Your task to perform on an android device: turn on the 12-hour format for clock Image 0: 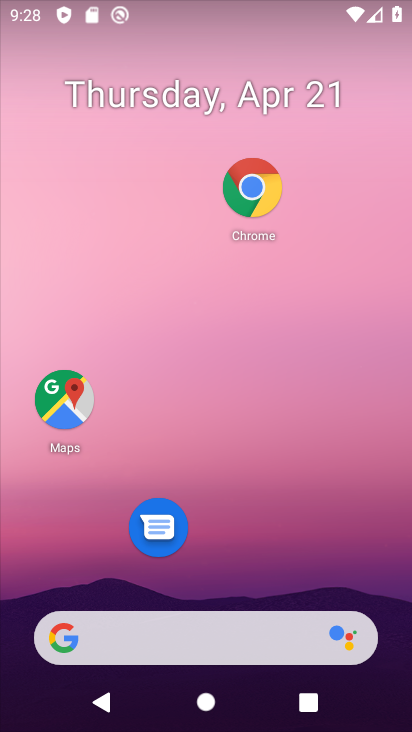
Step 0: drag from (249, 647) to (263, 92)
Your task to perform on an android device: turn on the 12-hour format for clock Image 1: 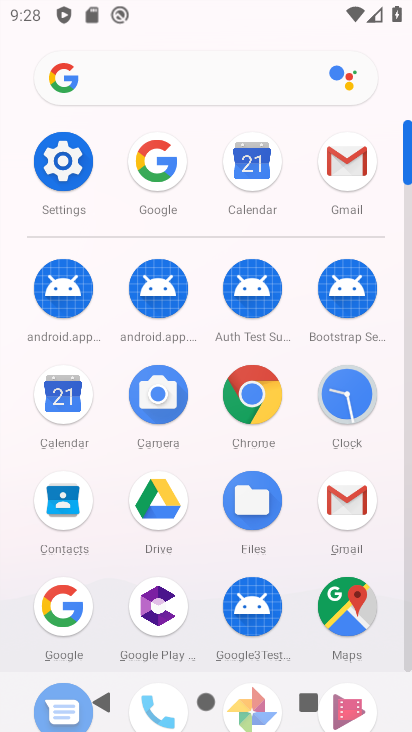
Step 1: click (343, 419)
Your task to perform on an android device: turn on the 12-hour format for clock Image 2: 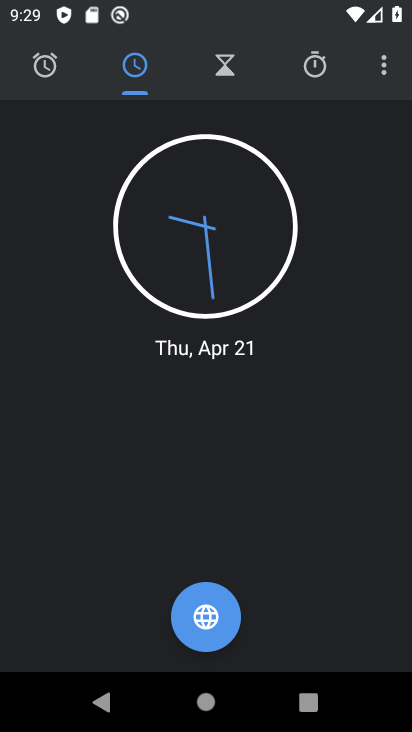
Step 2: click (382, 75)
Your task to perform on an android device: turn on the 12-hour format for clock Image 3: 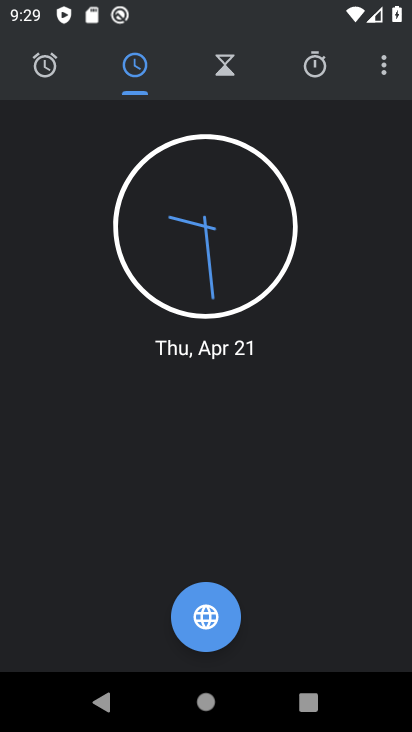
Step 3: click (387, 72)
Your task to perform on an android device: turn on the 12-hour format for clock Image 4: 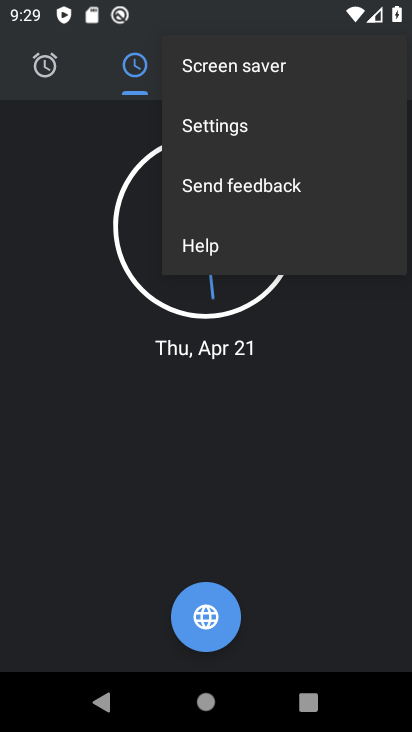
Step 4: click (285, 131)
Your task to perform on an android device: turn on the 12-hour format for clock Image 5: 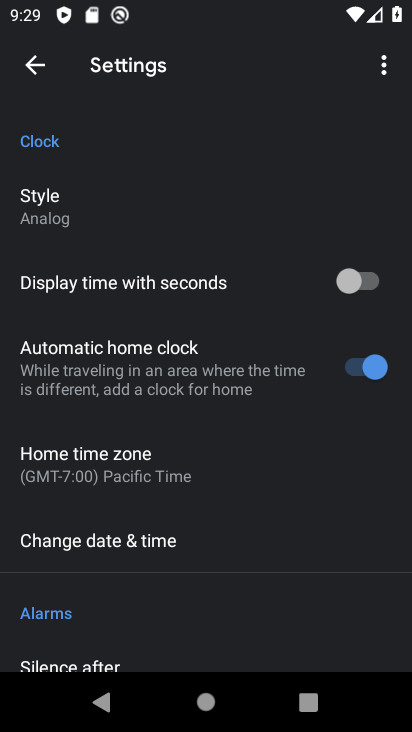
Step 5: click (215, 546)
Your task to perform on an android device: turn on the 12-hour format for clock Image 6: 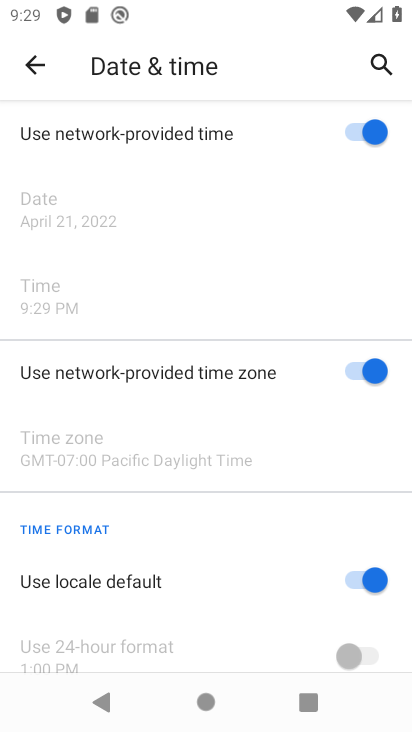
Step 6: task complete